Your task to perform on an android device: Play the last video I watched on Youtube Image 0: 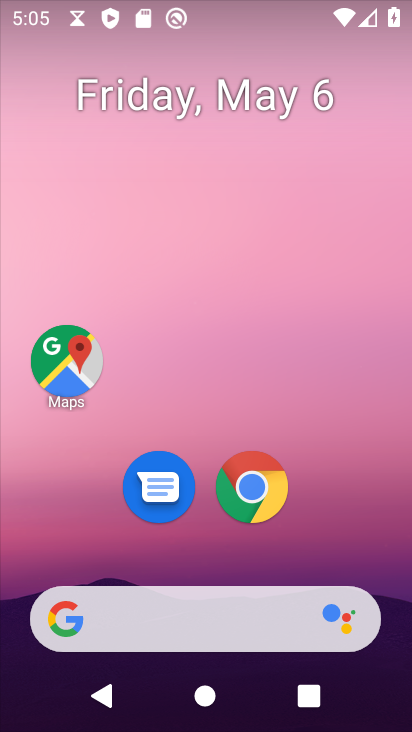
Step 0: drag from (343, 533) to (227, 5)
Your task to perform on an android device: Play the last video I watched on Youtube Image 1: 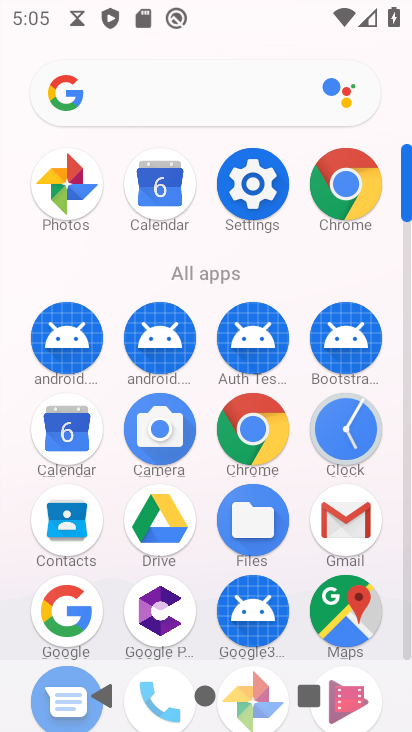
Step 1: drag from (201, 482) to (238, 65)
Your task to perform on an android device: Play the last video I watched on Youtube Image 2: 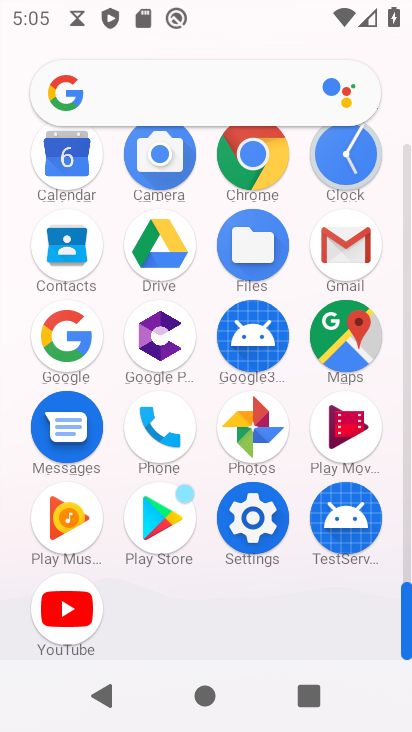
Step 2: click (64, 605)
Your task to perform on an android device: Play the last video I watched on Youtube Image 3: 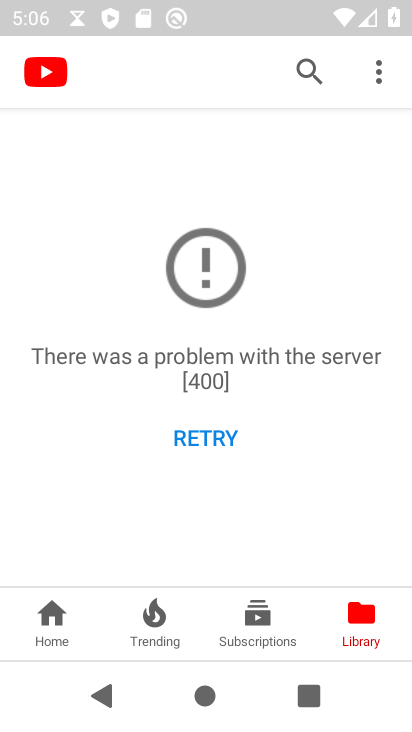
Step 3: task complete